Your task to perform on an android device: read, delete, or share a saved page in the chrome app Image 0: 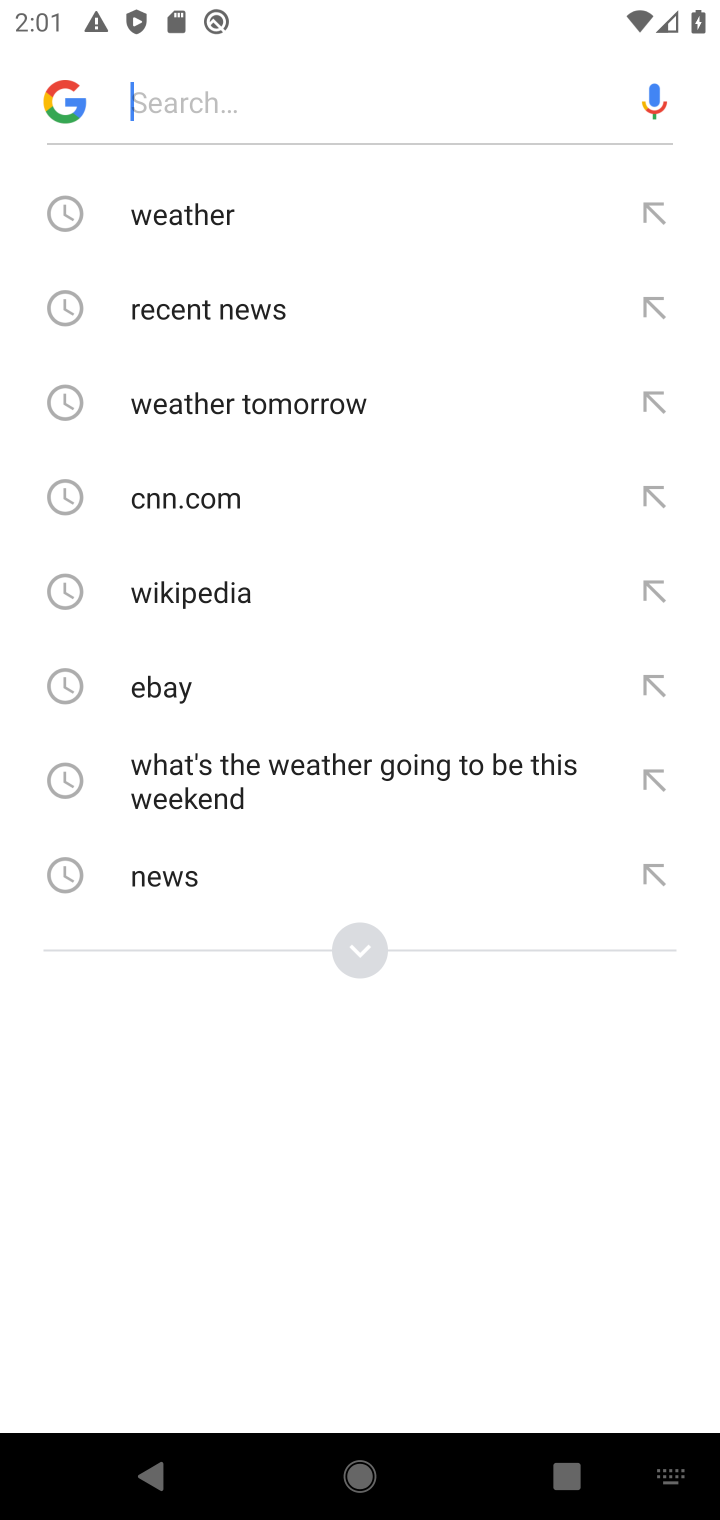
Step 0: press home button
Your task to perform on an android device: read, delete, or share a saved page in the chrome app Image 1: 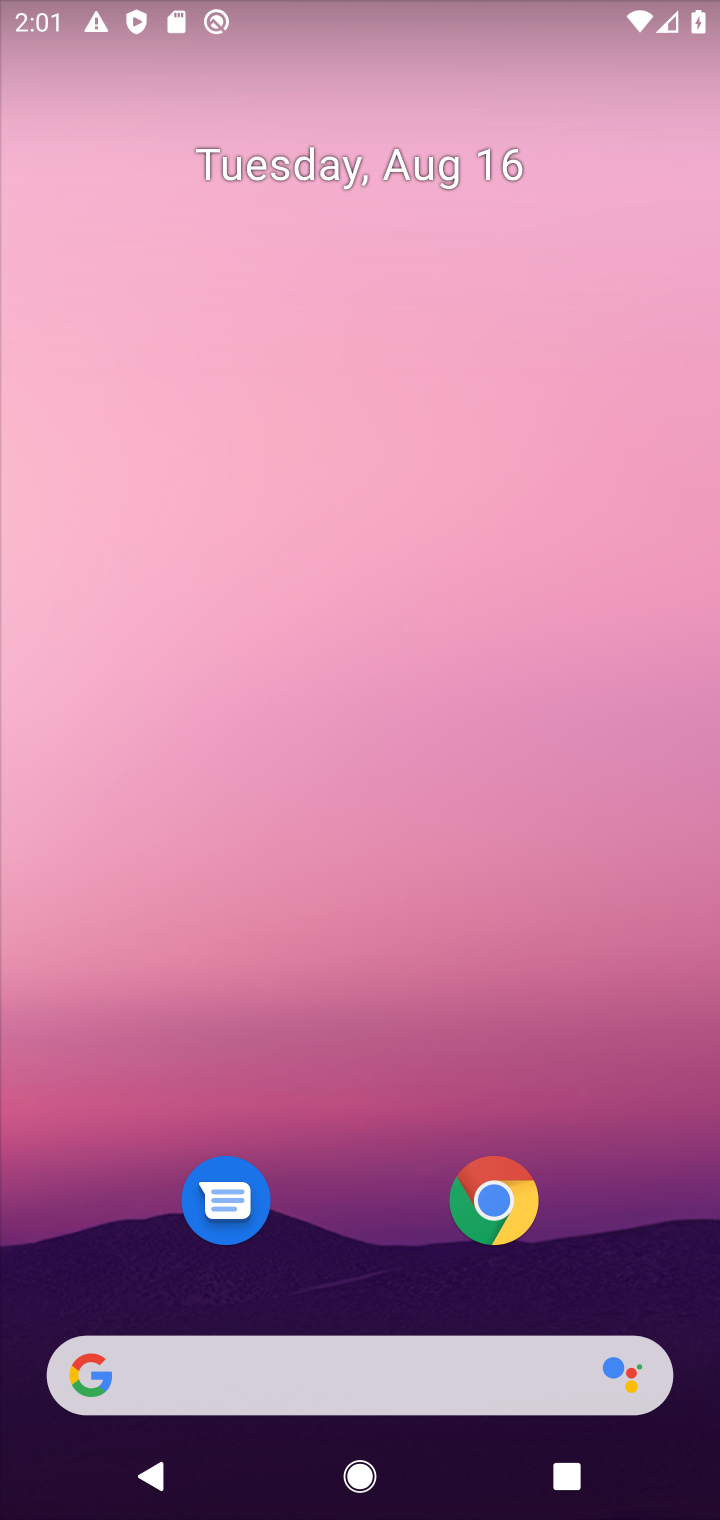
Step 1: drag from (82, 1427) to (492, 626)
Your task to perform on an android device: read, delete, or share a saved page in the chrome app Image 2: 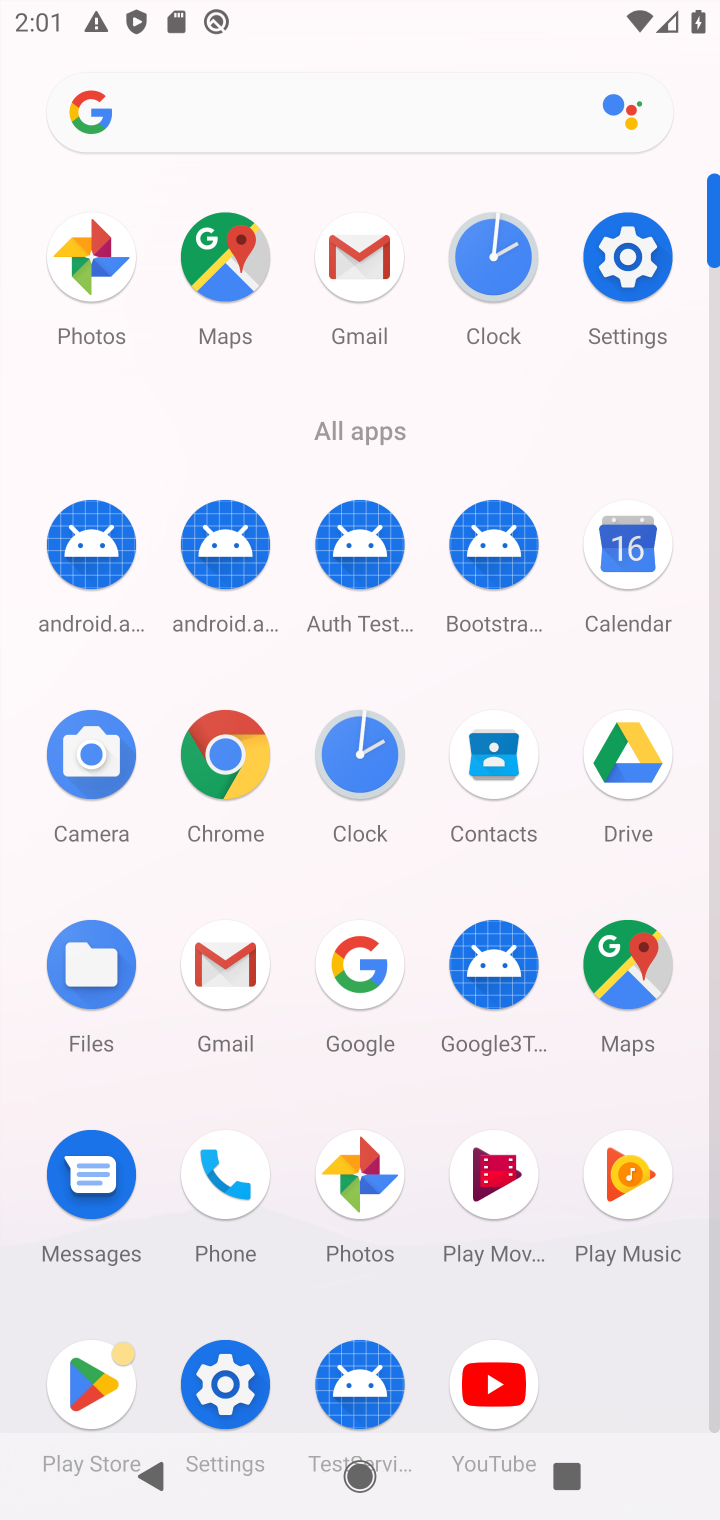
Step 2: click (208, 763)
Your task to perform on an android device: read, delete, or share a saved page in the chrome app Image 3: 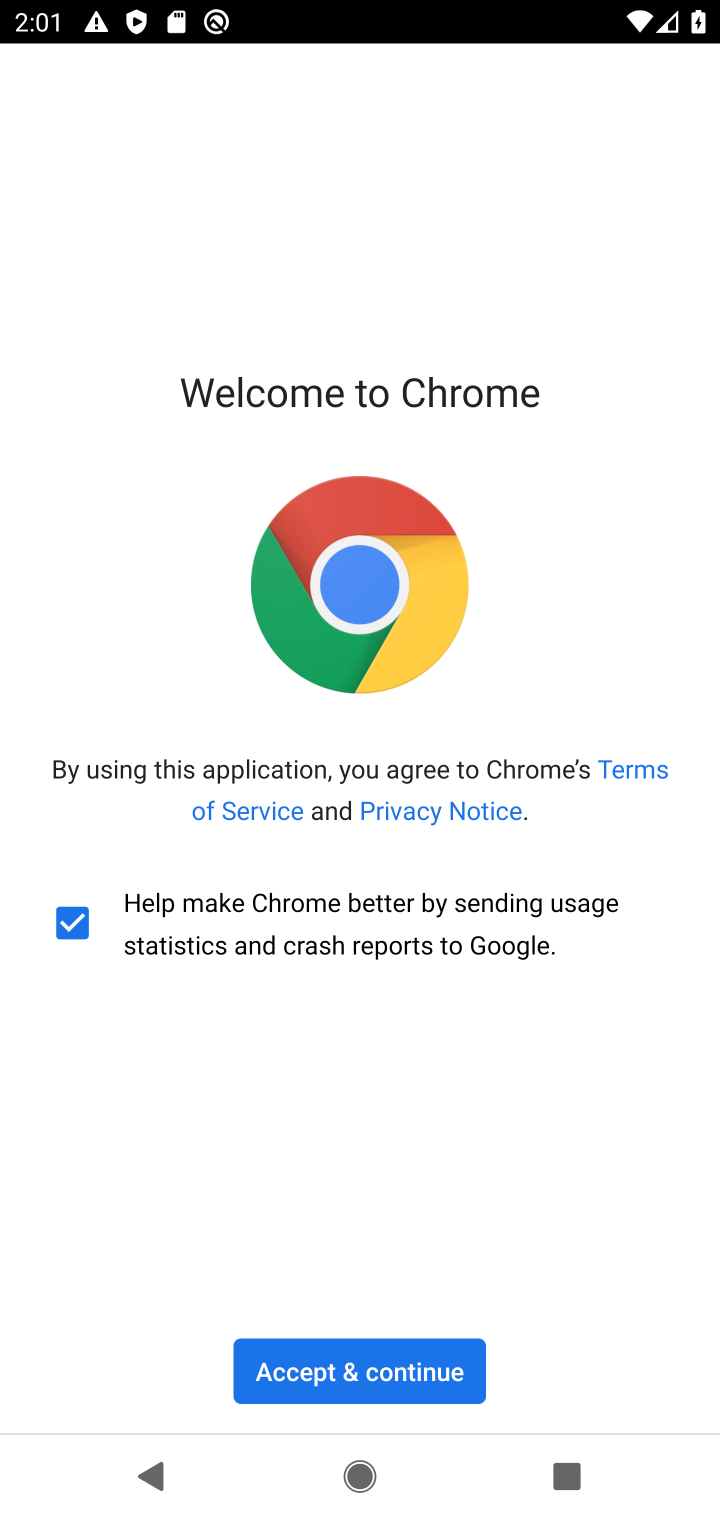
Step 3: click (372, 1375)
Your task to perform on an android device: read, delete, or share a saved page in the chrome app Image 4: 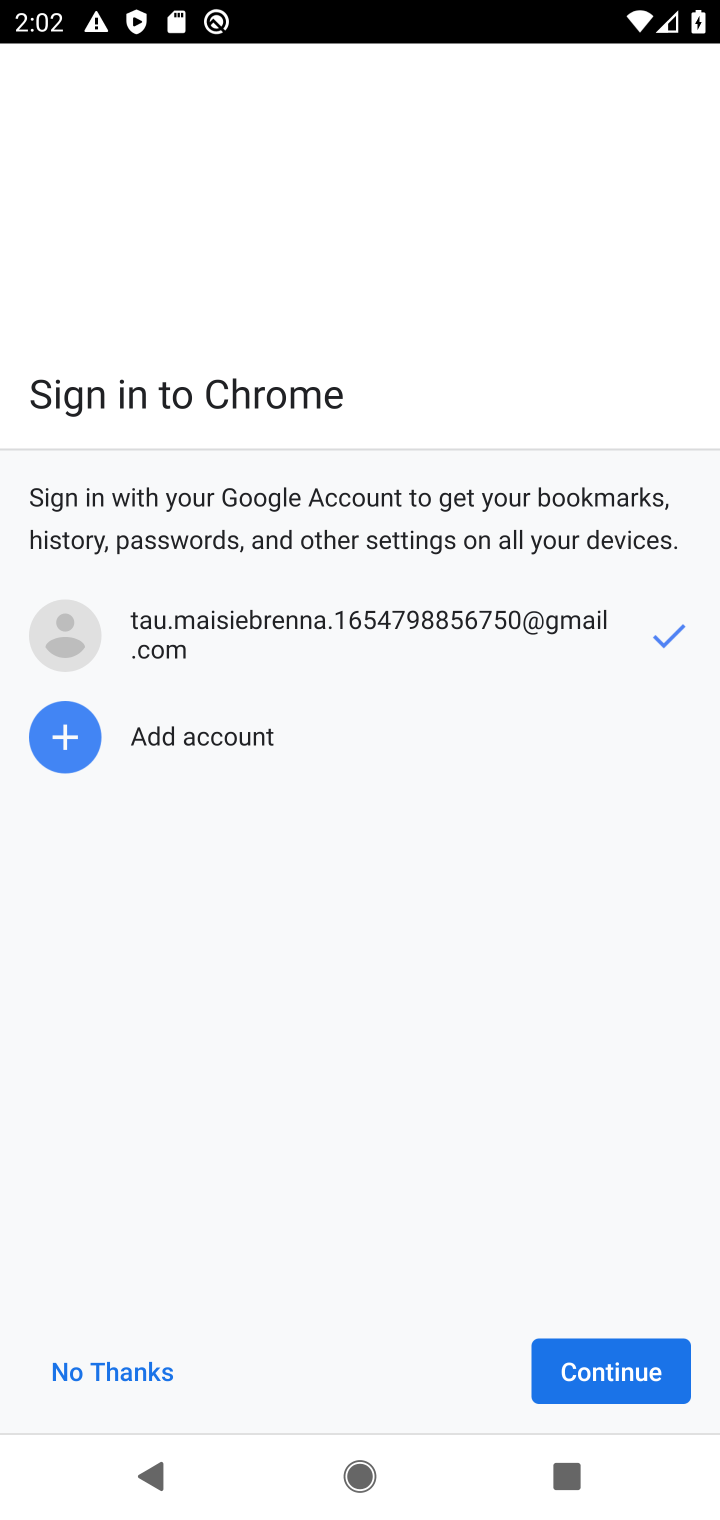
Step 4: click (570, 1357)
Your task to perform on an android device: read, delete, or share a saved page in the chrome app Image 5: 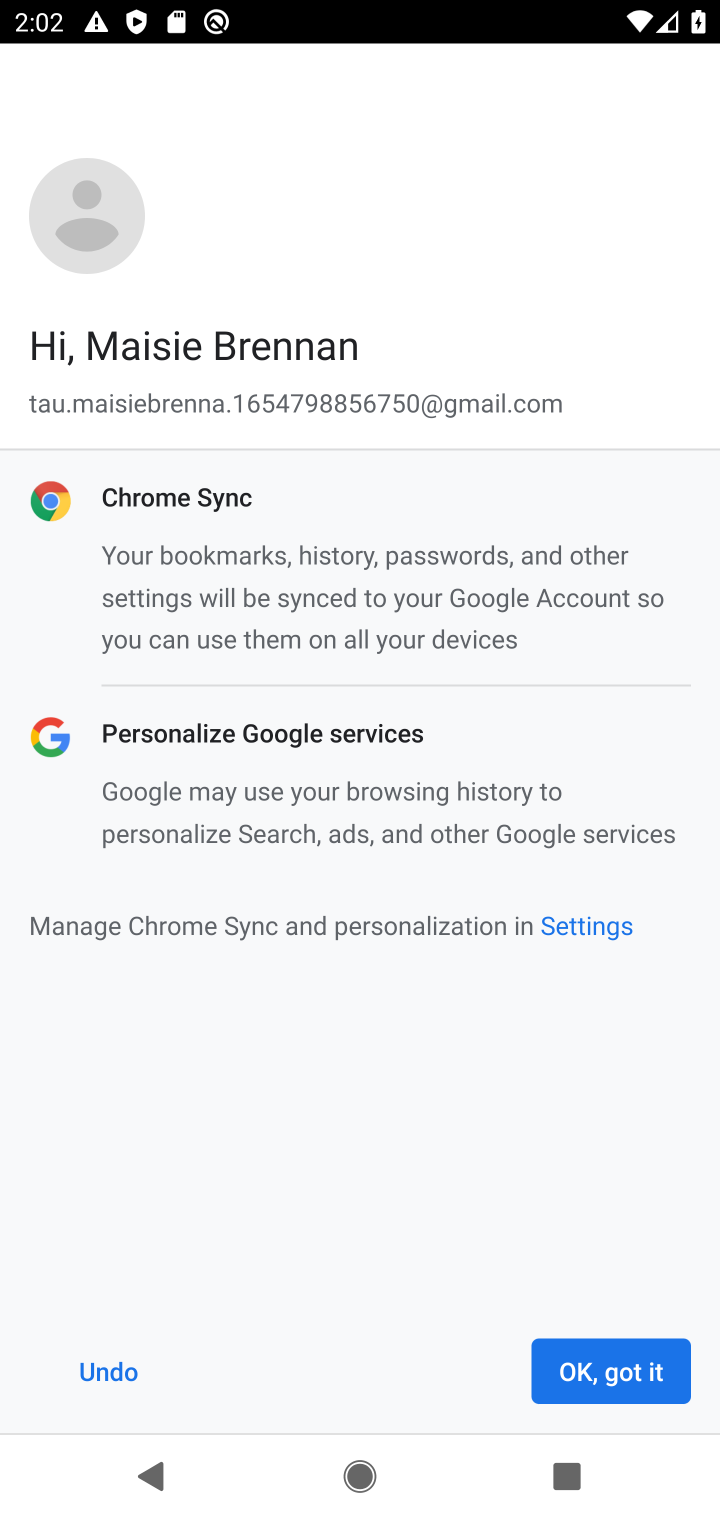
Step 5: click (614, 1372)
Your task to perform on an android device: read, delete, or share a saved page in the chrome app Image 6: 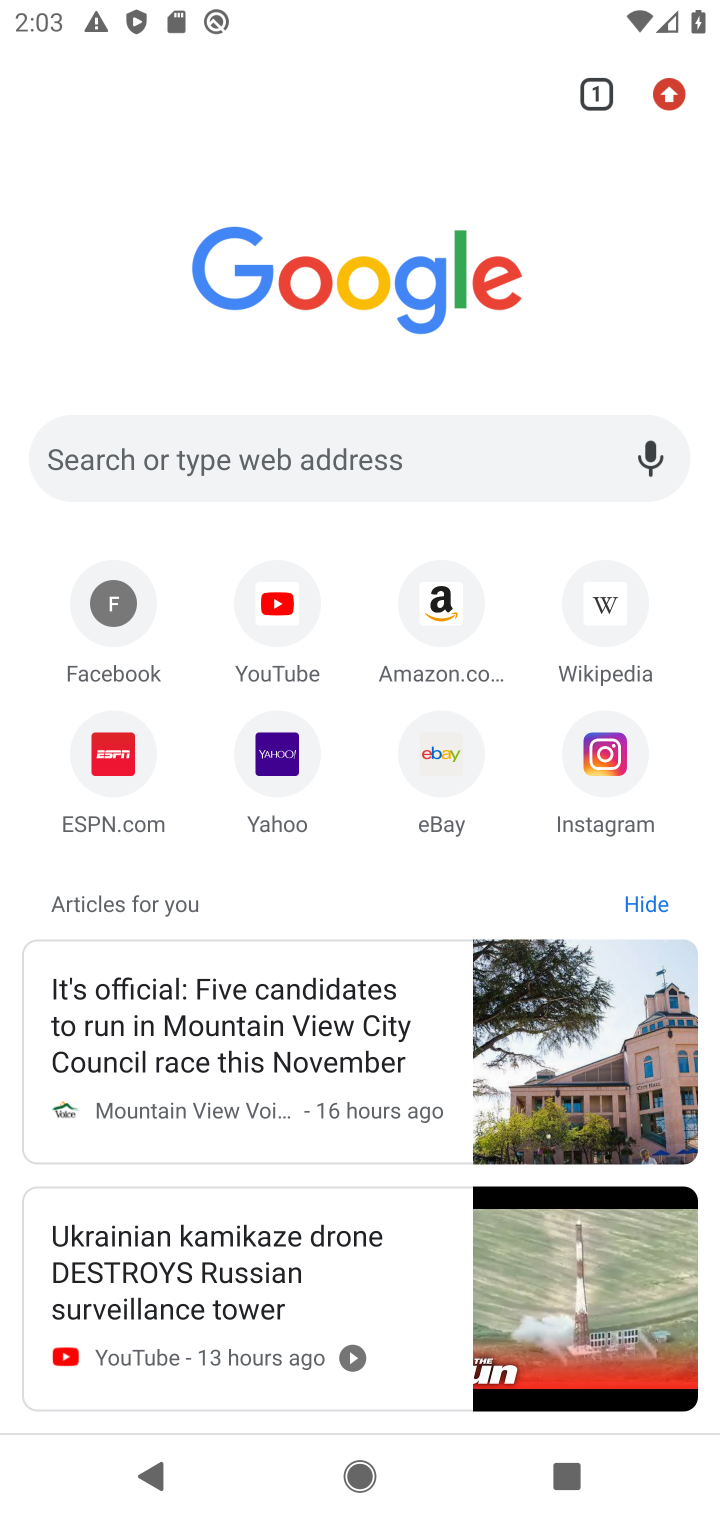
Step 6: task complete